Your task to perform on an android device: Show me recent news Image 0: 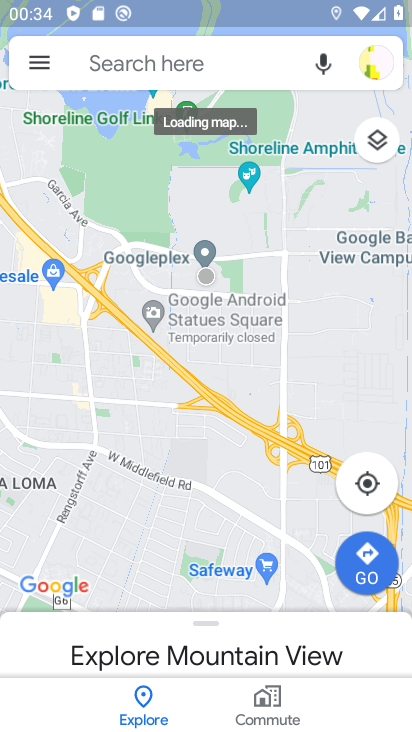
Step 0: press back button
Your task to perform on an android device: Show me recent news Image 1: 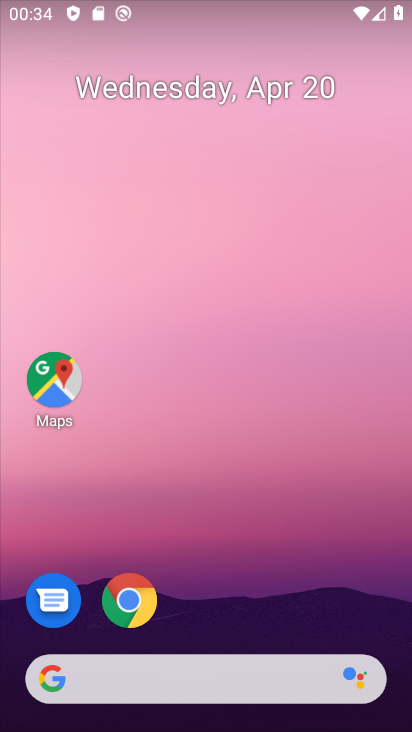
Step 1: click (190, 671)
Your task to perform on an android device: Show me recent news Image 2: 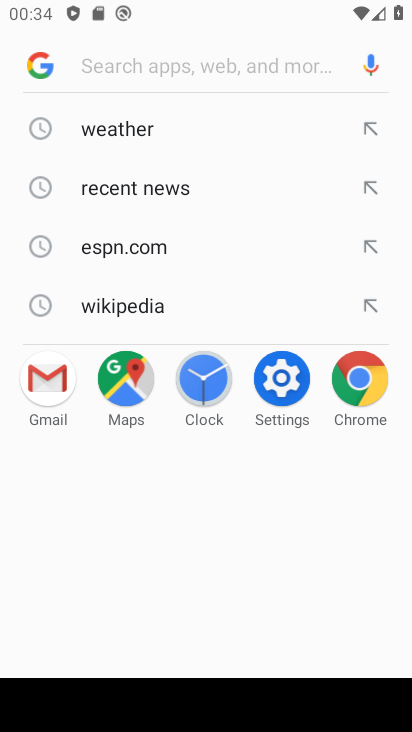
Step 2: click (134, 195)
Your task to perform on an android device: Show me recent news Image 3: 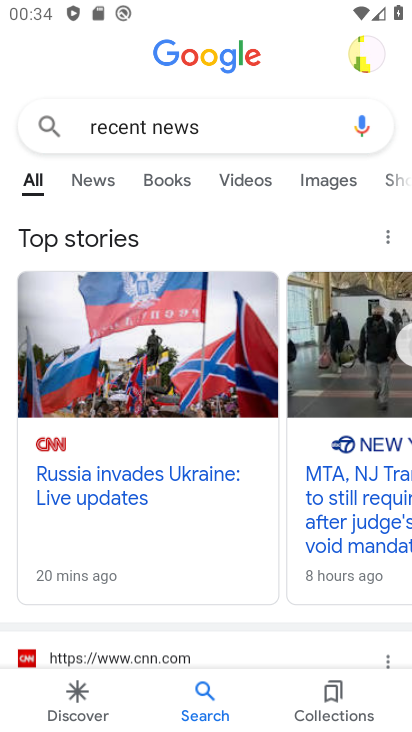
Step 3: task complete